Your task to perform on an android device: Empty the shopping cart on ebay.com. Image 0: 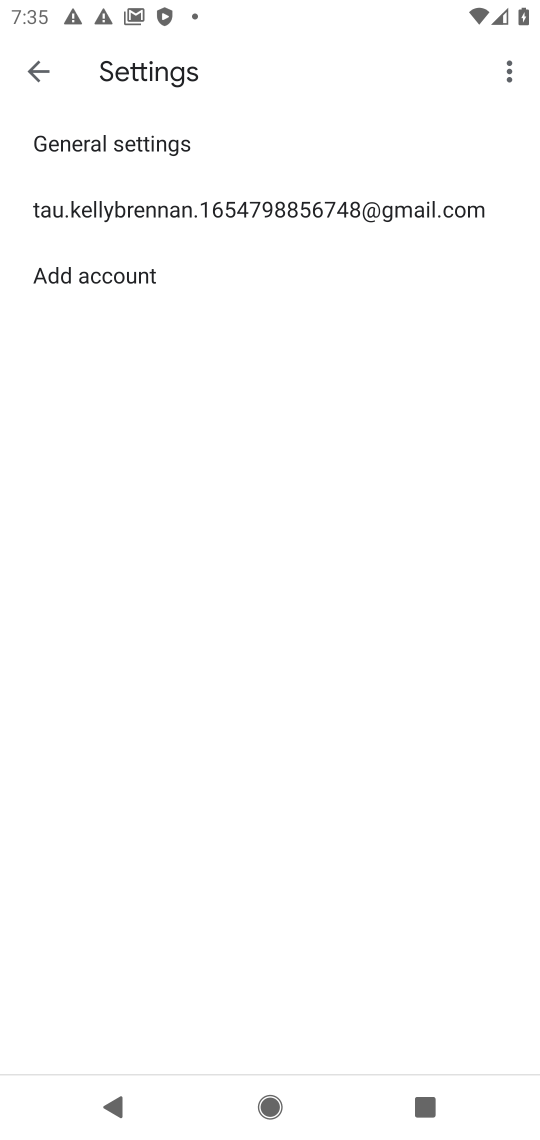
Step 0: press home button
Your task to perform on an android device: Empty the shopping cart on ebay.com. Image 1: 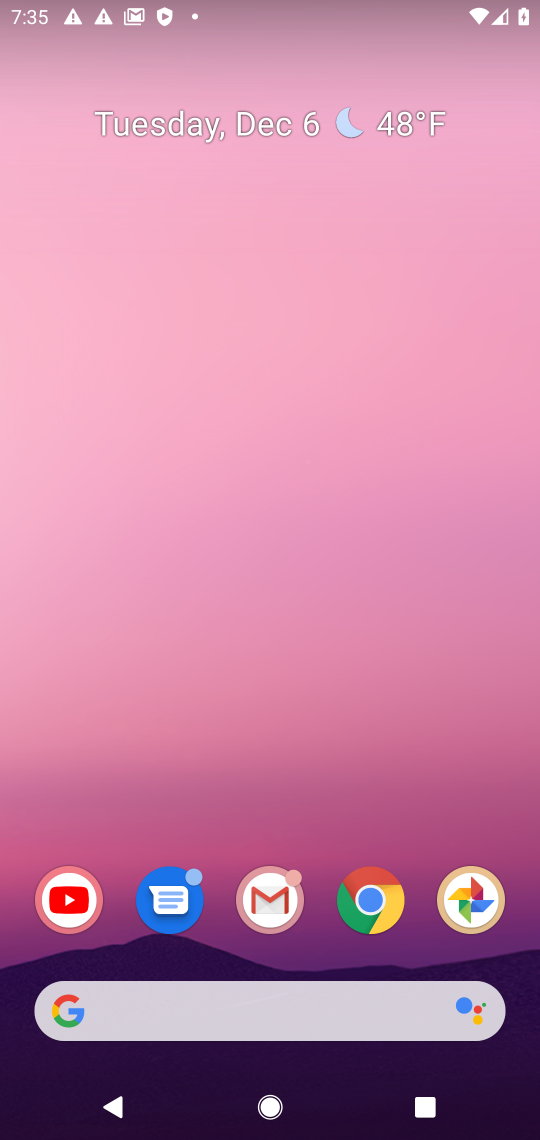
Step 1: drag from (266, 1023) to (333, 262)
Your task to perform on an android device: Empty the shopping cart on ebay.com. Image 2: 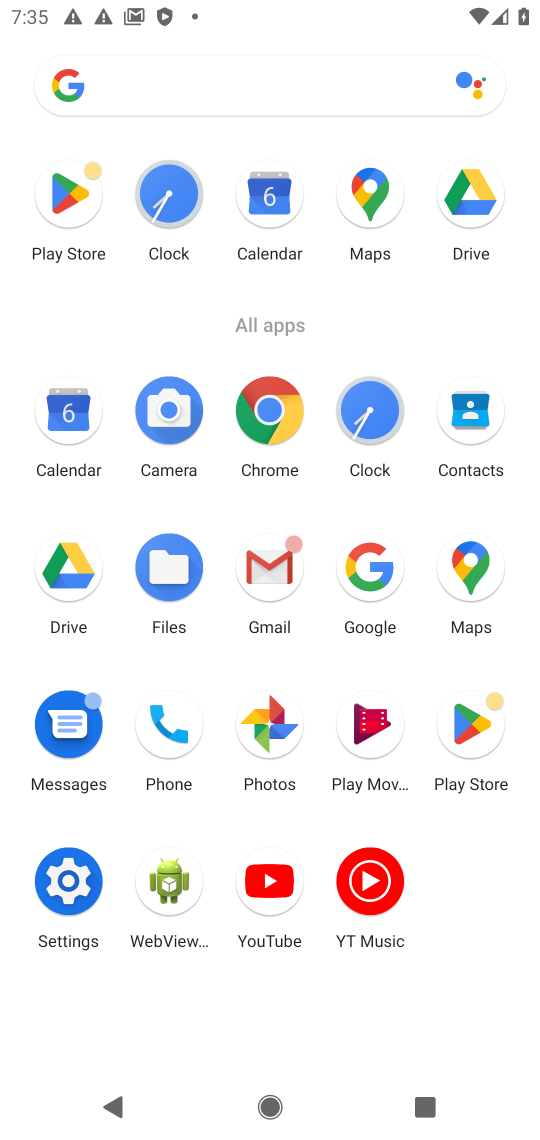
Step 2: click (374, 577)
Your task to perform on an android device: Empty the shopping cart on ebay.com. Image 3: 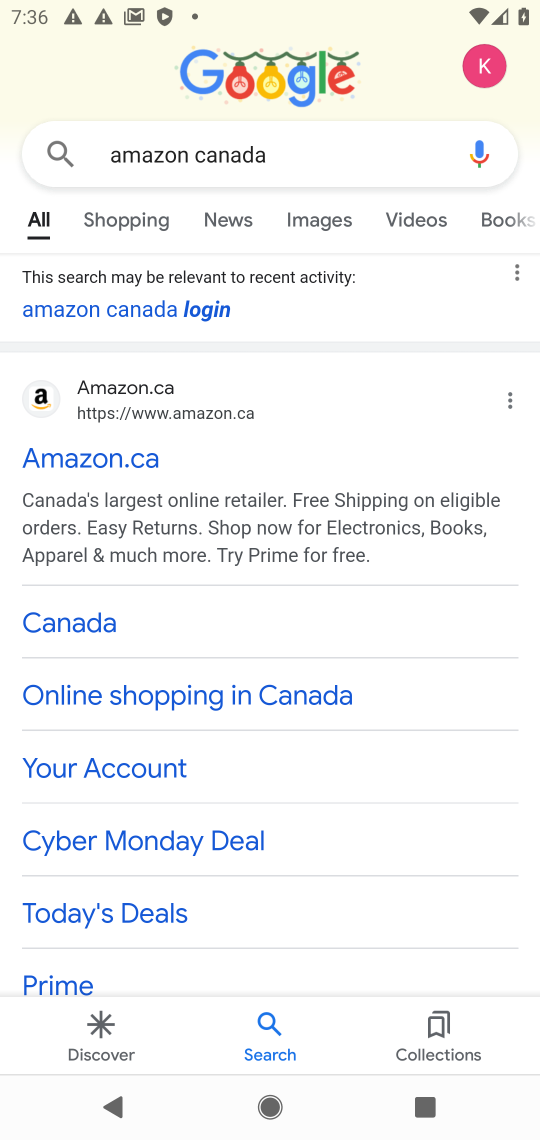
Step 3: click (135, 164)
Your task to perform on an android device: Empty the shopping cart on ebay.com. Image 4: 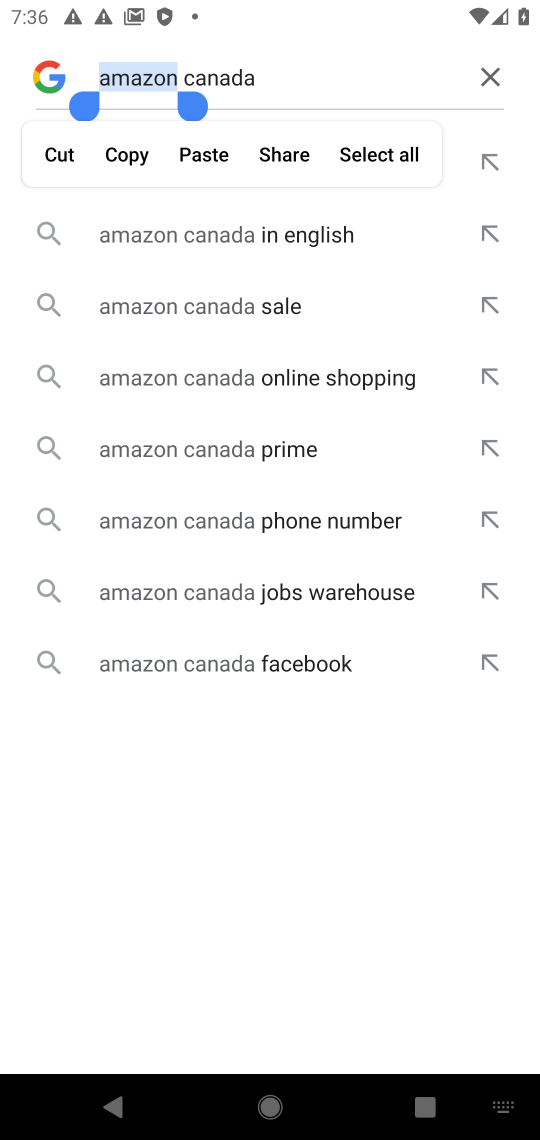
Step 4: click (508, 78)
Your task to perform on an android device: Empty the shopping cart on ebay.com. Image 5: 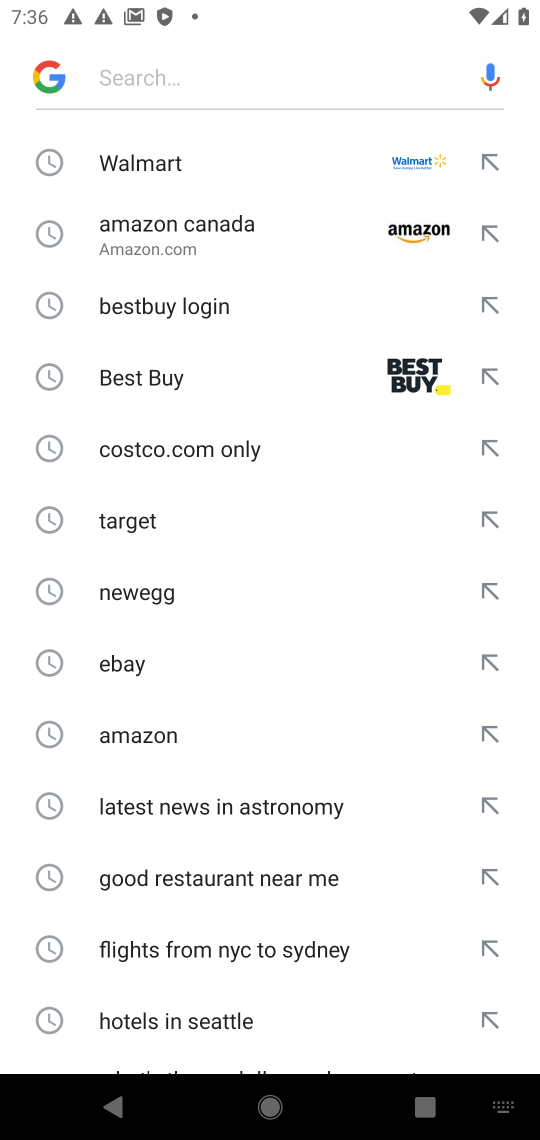
Step 5: click (502, 666)
Your task to perform on an android device: Empty the shopping cart on ebay.com. Image 6: 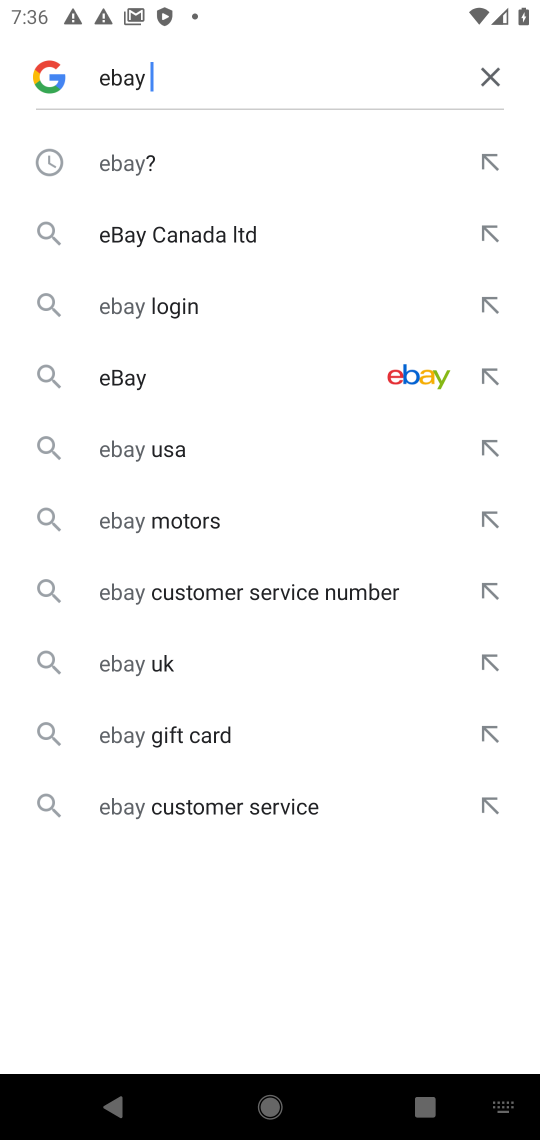
Step 6: click (107, 172)
Your task to perform on an android device: Empty the shopping cart on ebay.com. Image 7: 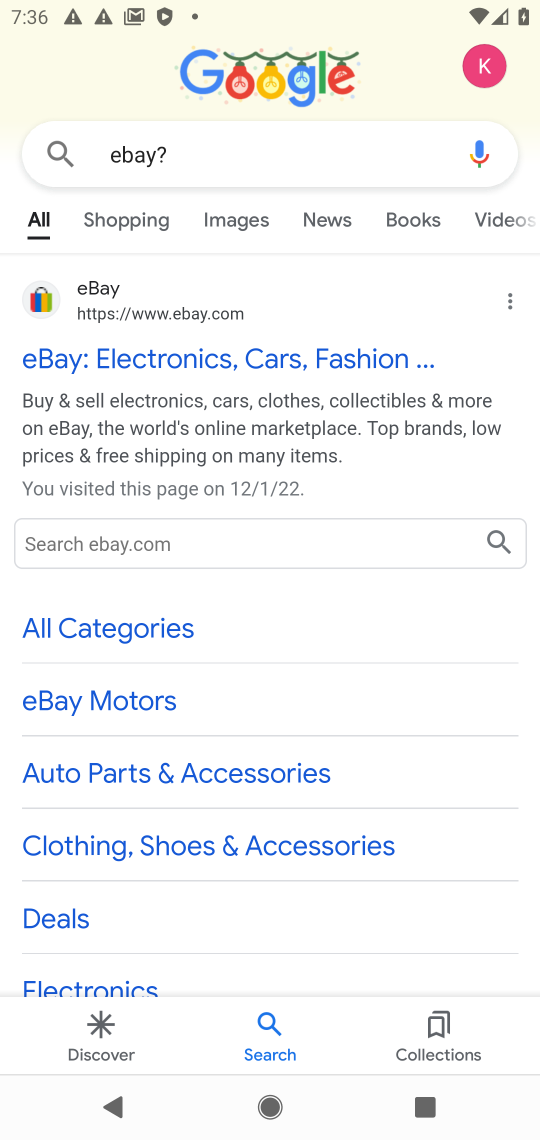
Step 7: click (172, 348)
Your task to perform on an android device: Empty the shopping cart on ebay.com. Image 8: 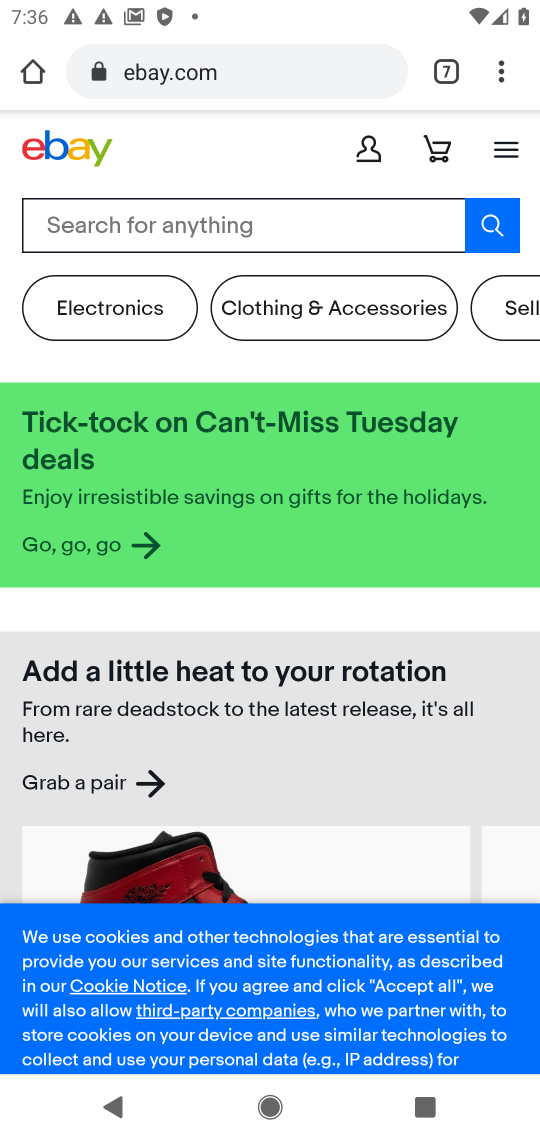
Step 8: click (169, 214)
Your task to perform on an android device: Empty the shopping cart on ebay.com. Image 9: 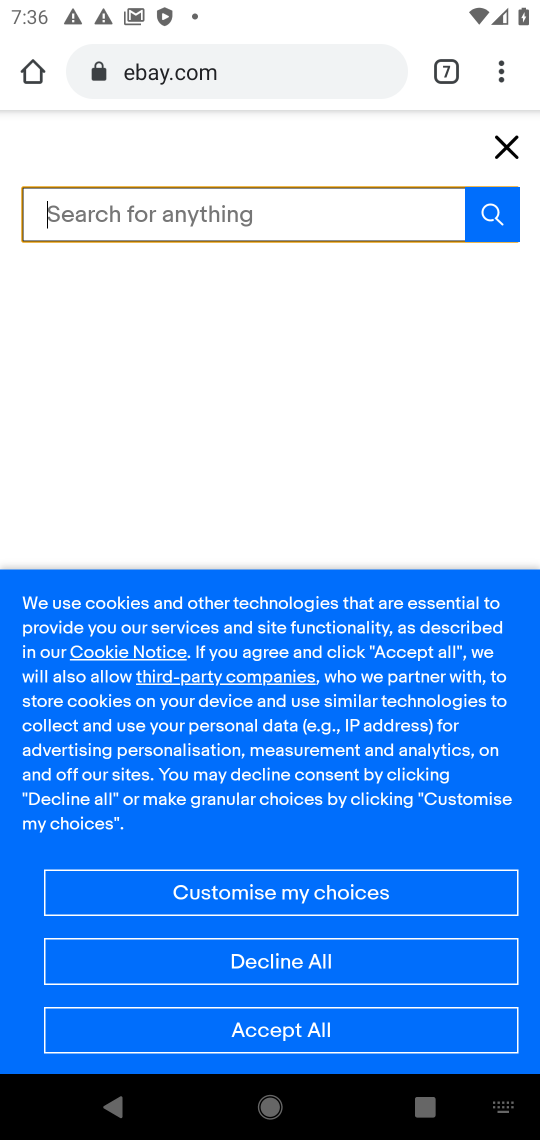
Step 9: click (510, 155)
Your task to perform on an android device: Empty the shopping cart on ebay.com. Image 10: 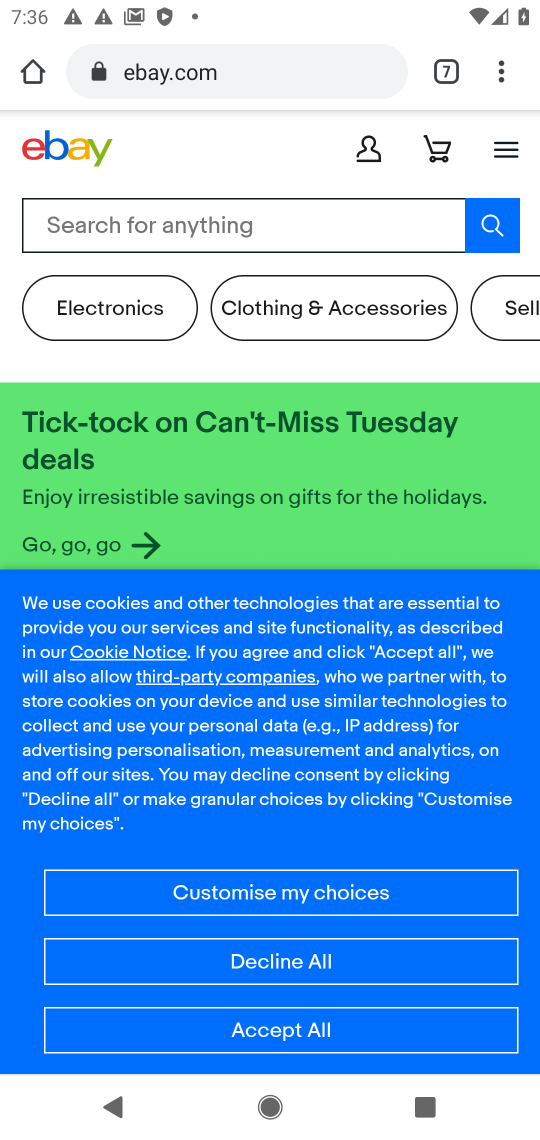
Step 10: click (431, 143)
Your task to perform on an android device: Empty the shopping cart on ebay.com. Image 11: 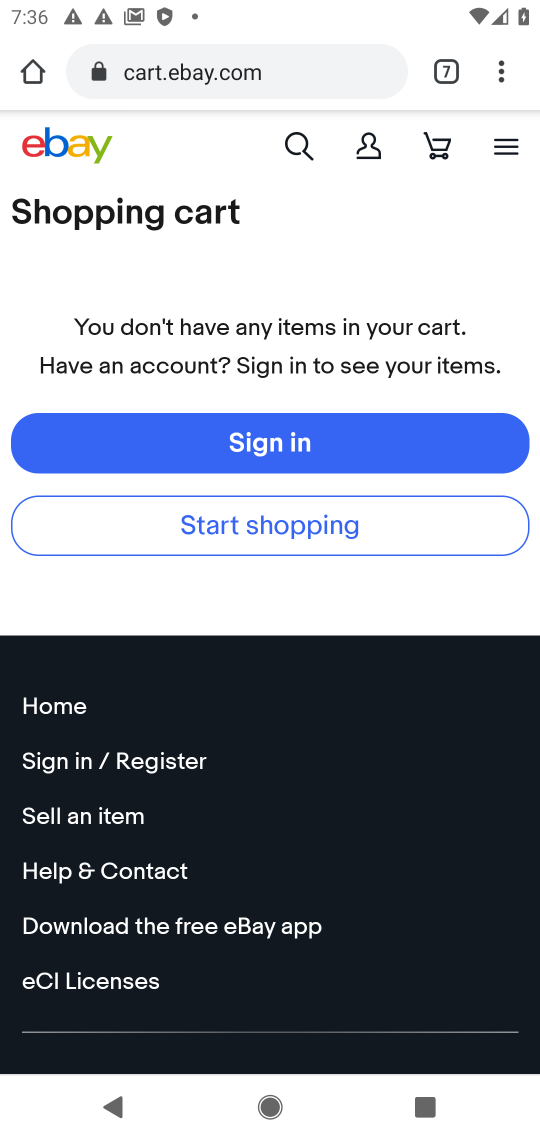
Step 11: task complete